Your task to perform on an android device: Go to calendar. Show me events next week Image 0: 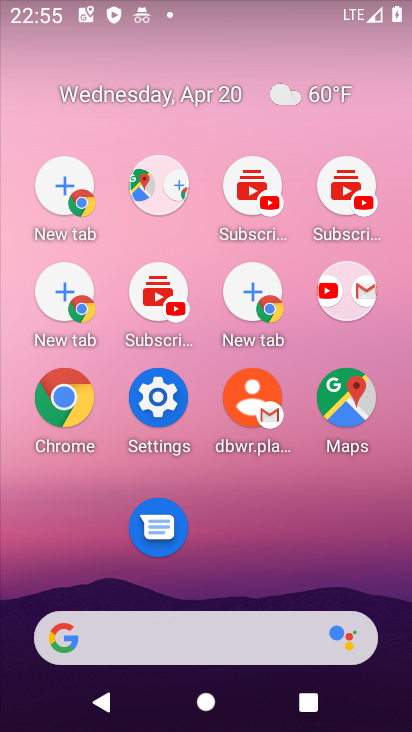
Step 0: drag from (252, 527) to (250, 156)
Your task to perform on an android device: Go to calendar. Show me events next week Image 1: 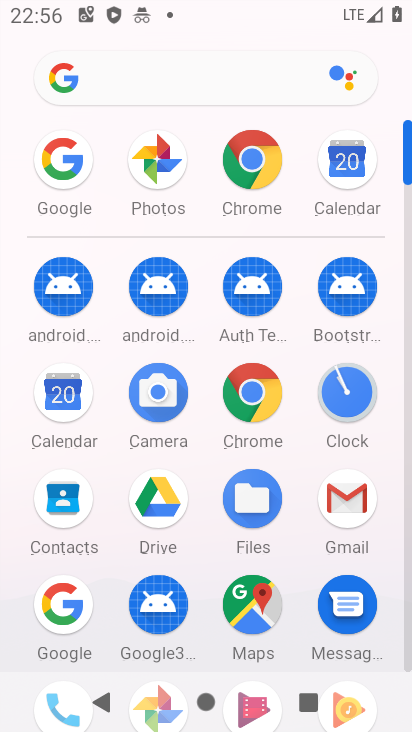
Step 1: click (72, 394)
Your task to perform on an android device: Go to calendar. Show me events next week Image 2: 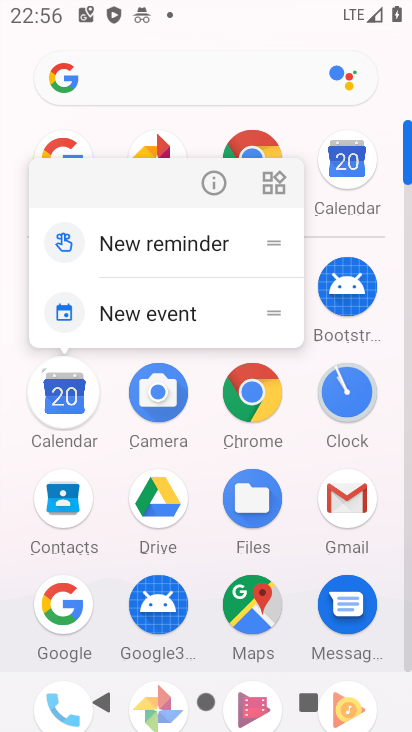
Step 2: click (72, 394)
Your task to perform on an android device: Go to calendar. Show me events next week Image 3: 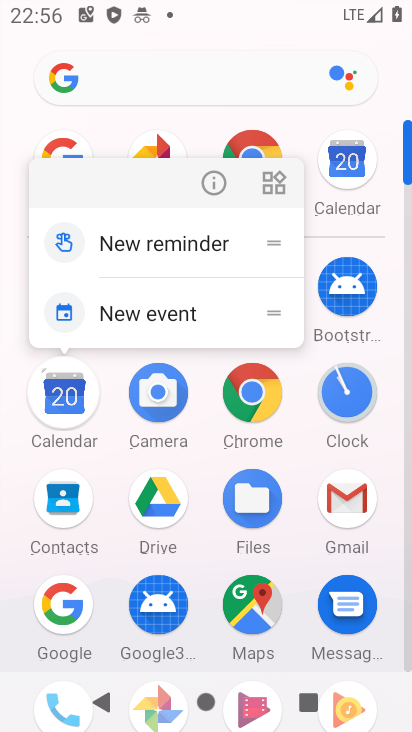
Step 3: click (72, 394)
Your task to perform on an android device: Go to calendar. Show me events next week Image 4: 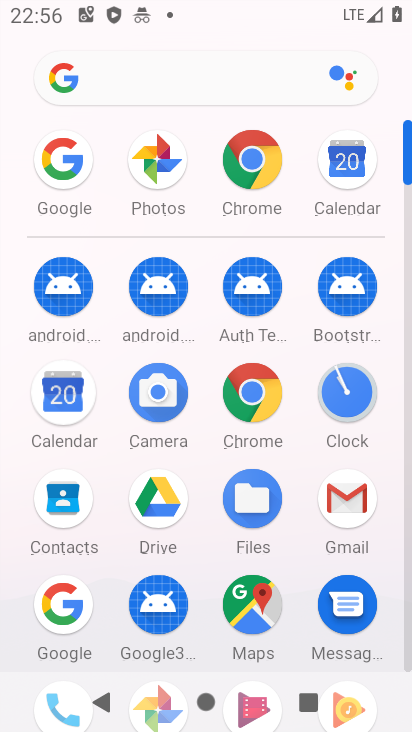
Step 4: click (72, 394)
Your task to perform on an android device: Go to calendar. Show me events next week Image 5: 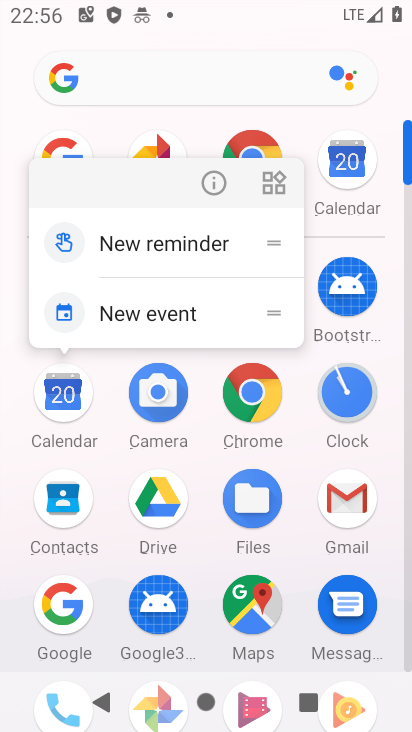
Step 5: click (72, 394)
Your task to perform on an android device: Go to calendar. Show me events next week Image 6: 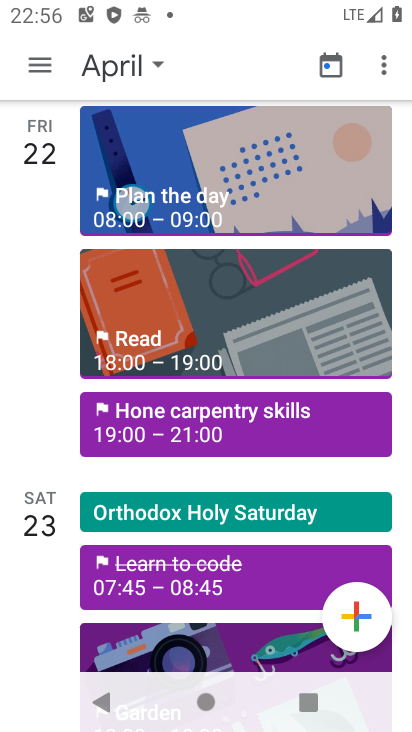
Step 6: task complete